Your task to perform on an android device: Go to notification settings Image 0: 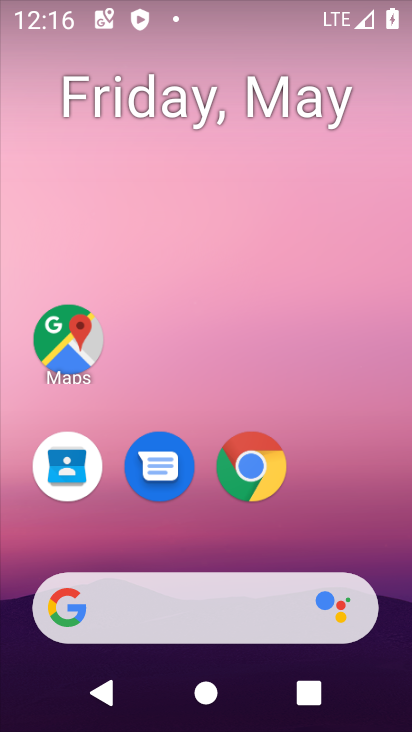
Step 0: drag from (208, 553) to (410, 426)
Your task to perform on an android device: Go to notification settings Image 1: 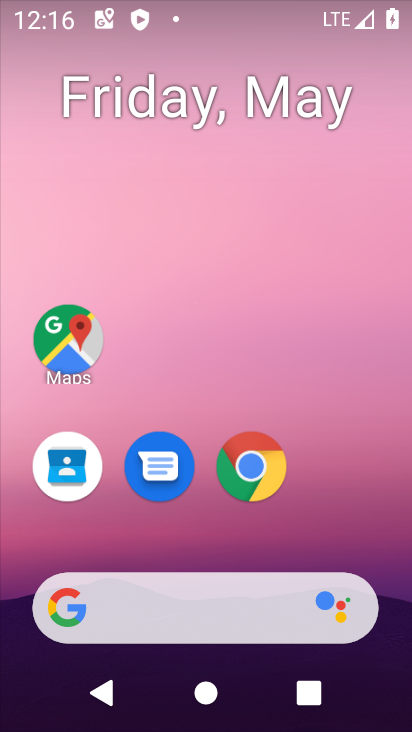
Step 1: drag from (182, 492) to (202, 108)
Your task to perform on an android device: Go to notification settings Image 2: 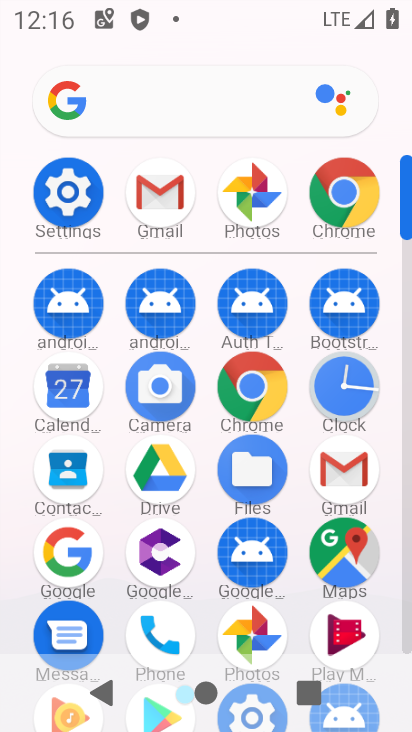
Step 2: click (75, 191)
Your task to perform on an android device: Go to notification settings Image 3: 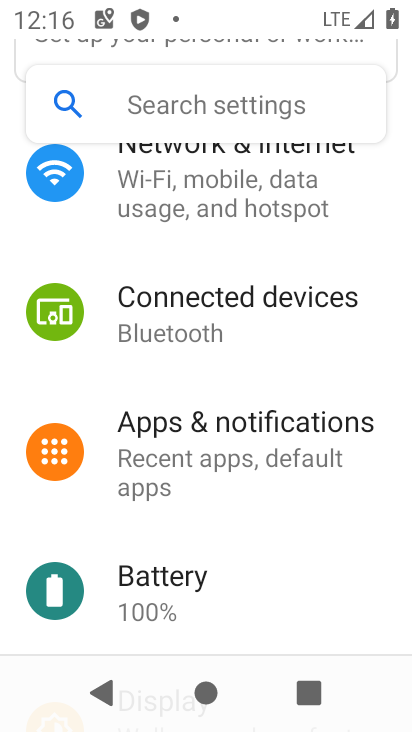
Step 3: drag from (241, 596) to (268, 271)
Your task to perform on an android device: Go to notification settings Image 4: 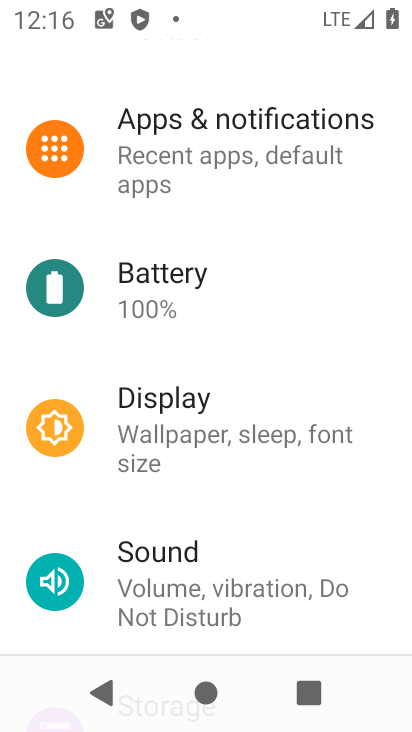
Step 4: click (224, 171)
Your task to perform on an android device: Go to notification settings Image 5: 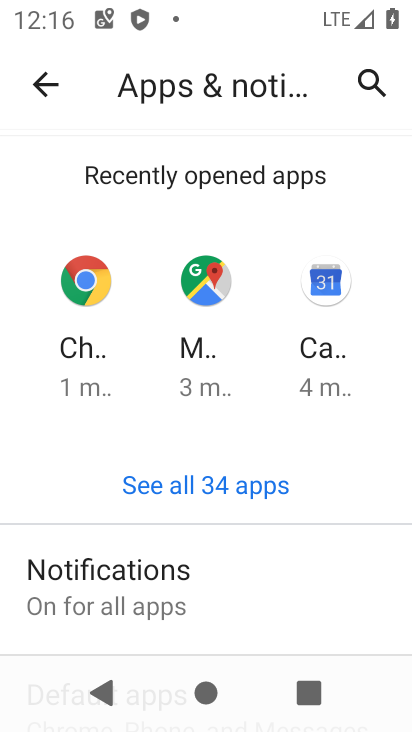
Step 5: click (116, 581)
Your task to perform on an android device: Go to notification settings Image 6: 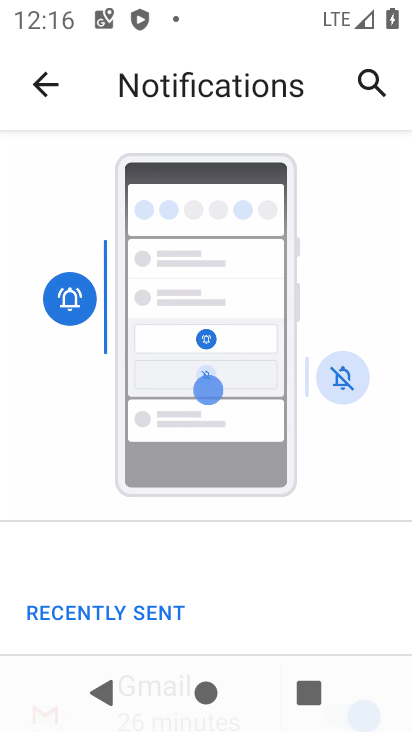
Step 6: task complete